Your task to perform on an android device: refresh tabs in the chrome app Image 0: 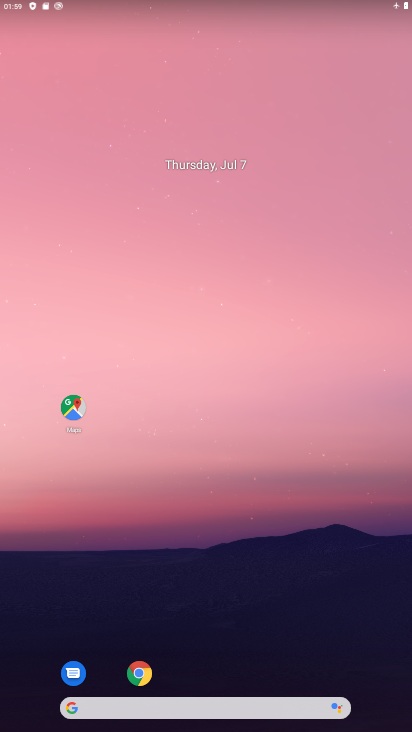
Step 0: click (139, 673)
Your task to perform on an android device: refresh tabs in the chrome app Image 1: 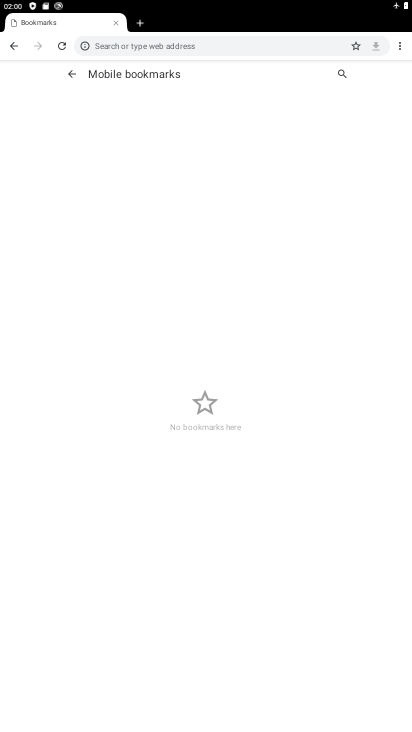
Step 1: click (396, 47)
Your task to perform on an android device: refresh tabs in the chrome app Image 2: 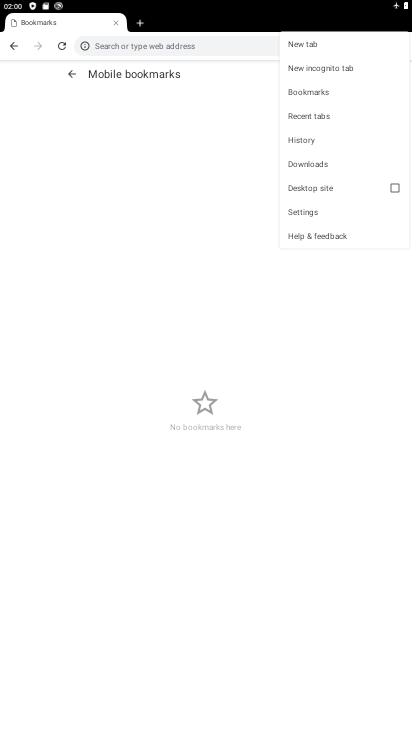
Step 2: click (64, 49)
Your task to perform on an android device: refresh tabs in the chrome app Image 3: 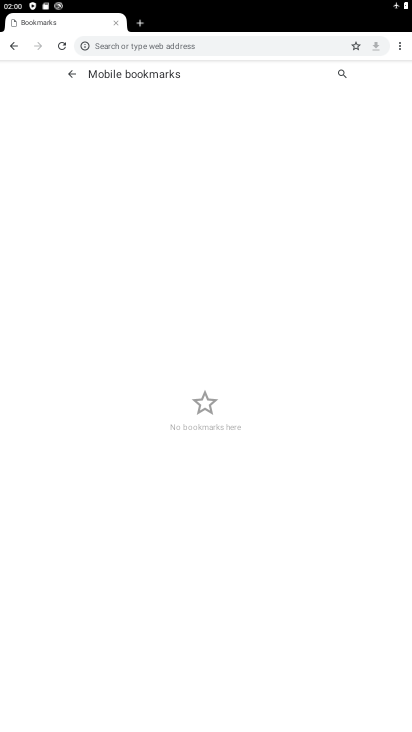
Step 3: click (57, 46)
Your task to perform on an android device: refresh tabs in the chrome app Image 4: 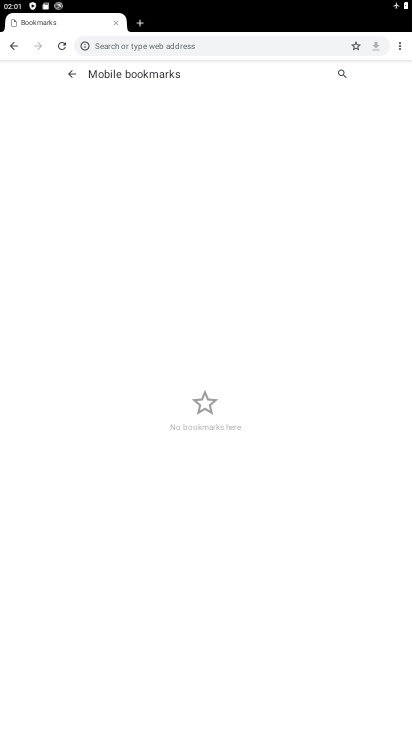
Step 4: task complete